Your task to perform on an android device: What's the weather going to be tomorrow? Image 0: 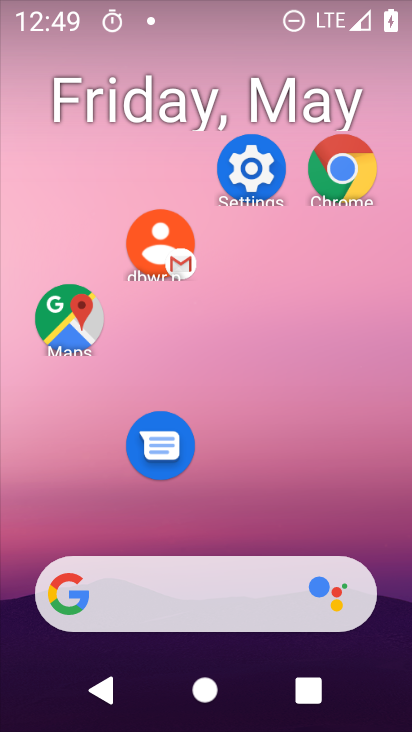
Step 0: drag from (229, 519) to (228, 161)
Your task to perform on an android device: What's the weather going to be tomorrow? Image 1: 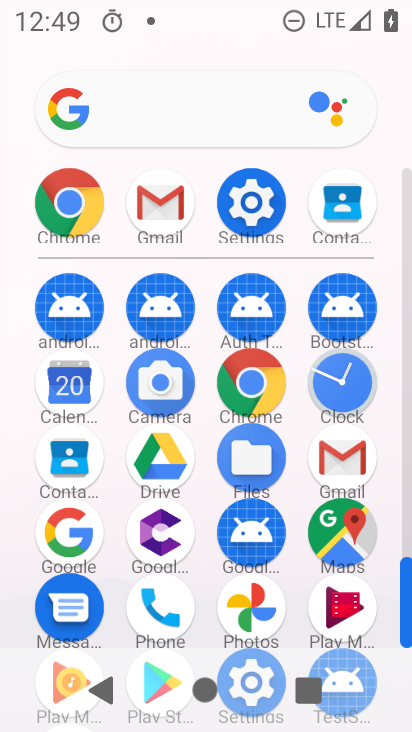
Step 1: click (244, 381)
Your task to perform on an android device: What's the weather going to be tomorrow? Image 2: 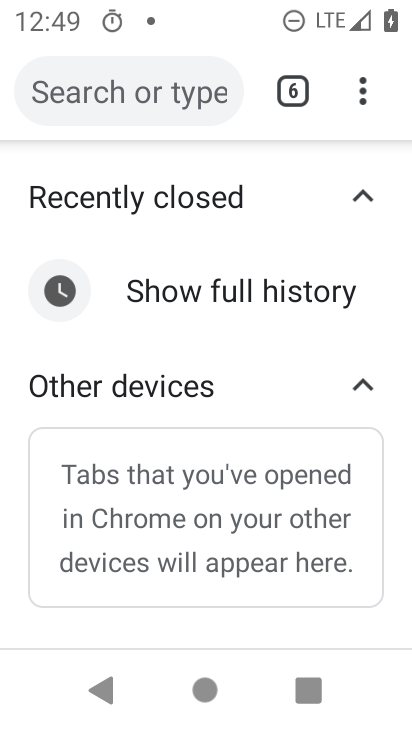
Step 2: click (284, 101)
Your task to perform on an android device: What's the weather going to be tomorrow? Image 3: 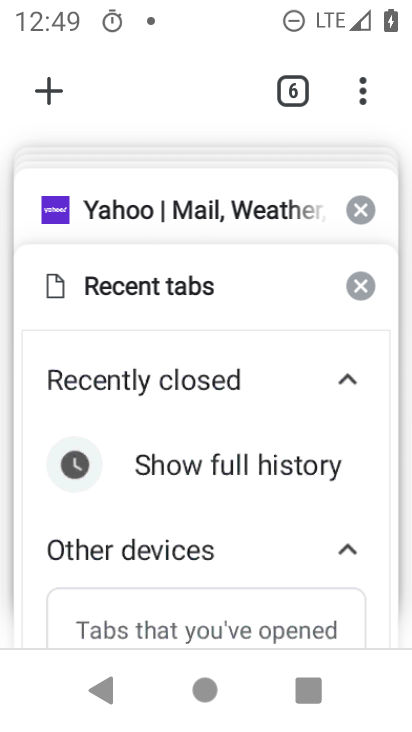
Step 3: click (360, 284)
Your task to perform on an android device: What's the weather going to be tomorrow? Image 4: 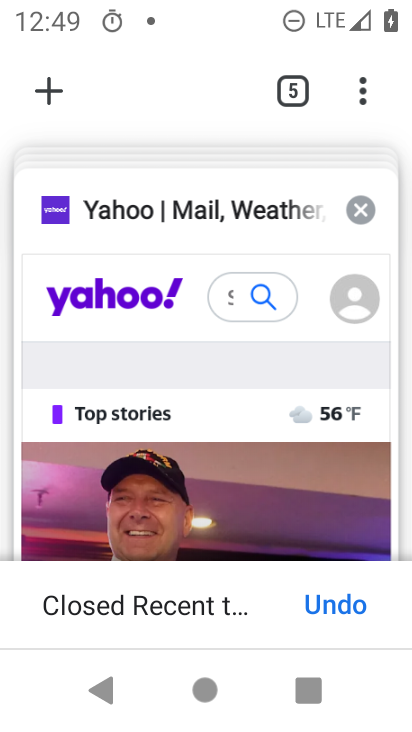
Step 4: click (353, 210)
Your task to perform on an android device: What's the weather going to be tomorrow? Image 5: 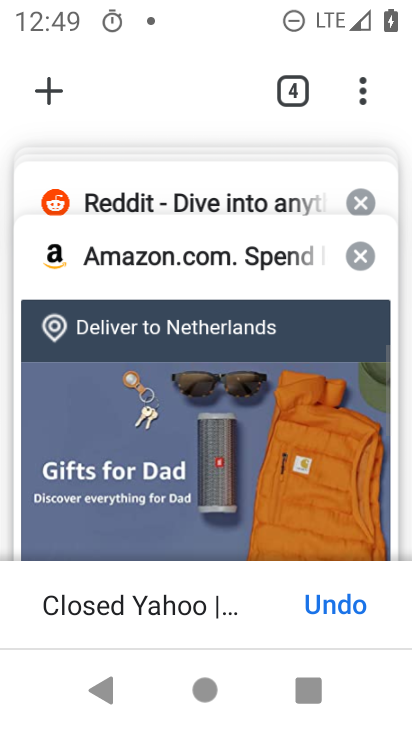
Step 5: click (360, 201)
Your task to perform on an android device: What's the weather going to be tomorrow? Image 6: 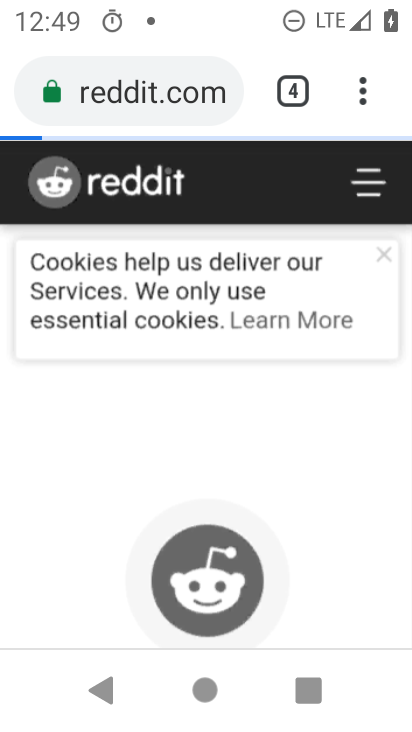
Step 6: click (360, 201)
Your task to perform on an android device: What's the weather going to be tomorrow? Image 7: 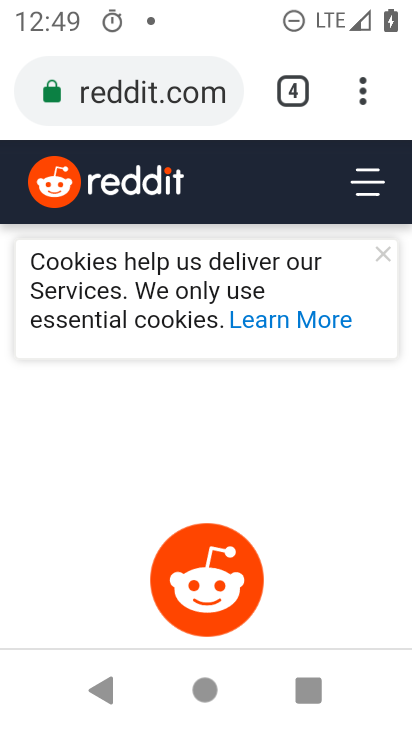
Step 7: click (173, 91)
Your task to perform on an android device: What's the weather going to be tomorrow? Image 8: 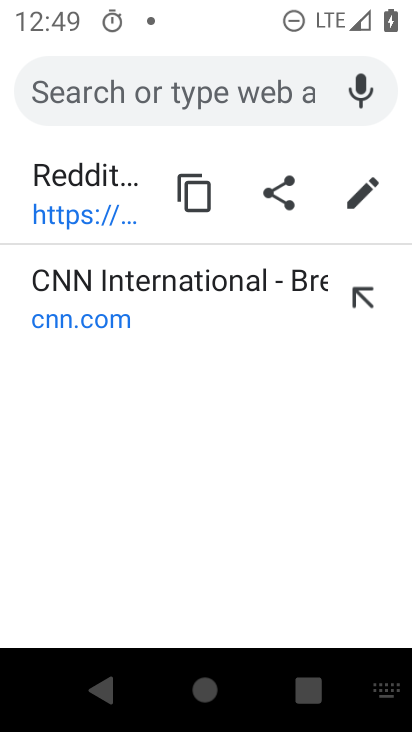
Step 8: type "weather going to be tomorrow"
Your task to perform on an android device: What's the weather going to be tomorrow? Image 9: 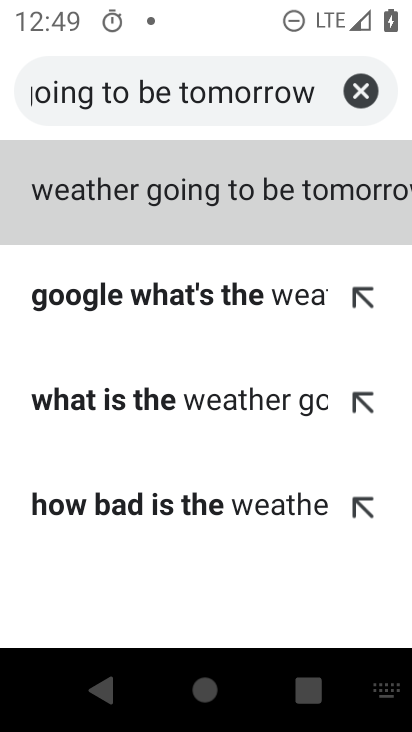
Step 9: click (138, 201)
Your task to perform on an android device: What's the weather going to be tomorrow? Image 10: 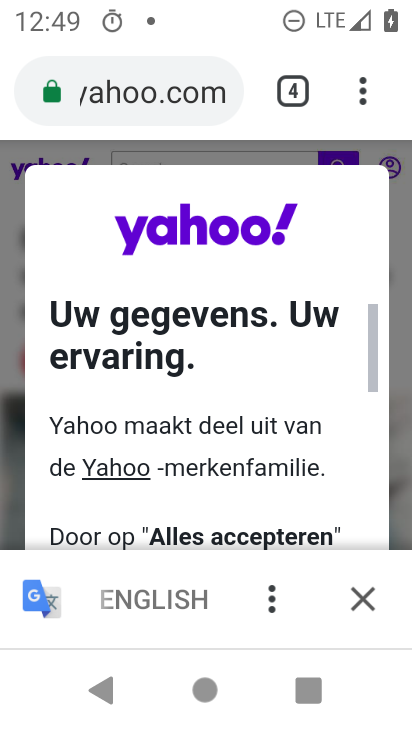
Step 10: task complete